Your task to perform on an android device: Open the phone app and click the voicemail tab. Image 0: 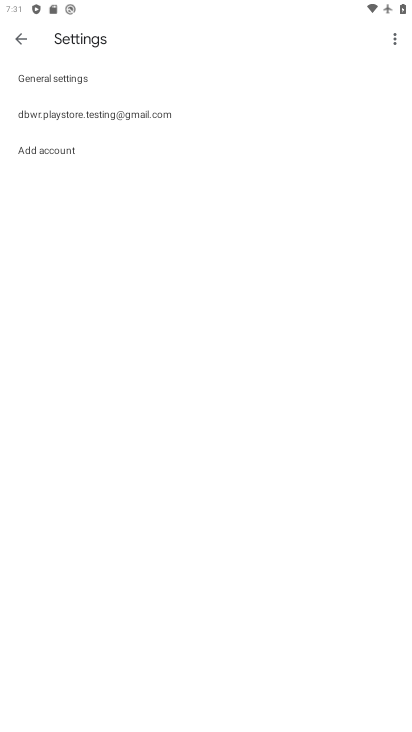
Step 0: press home button
Your task to perform on an android device: Open the phone app and click the voicemail tab. Image 1: 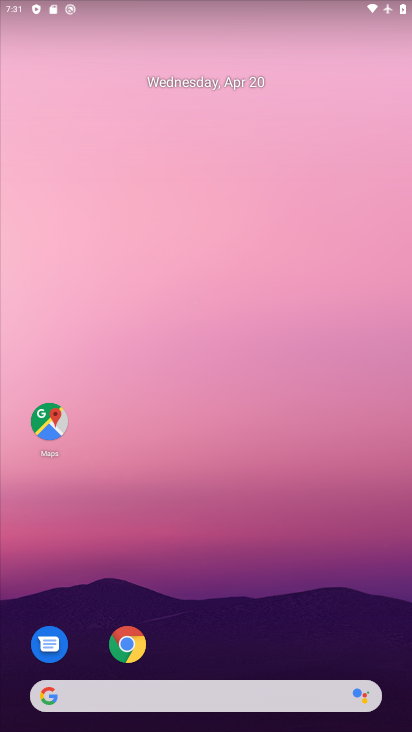
Step 1: drag from (319, 626) to (276, 69)
Your task to perform on an android device: Open the phone app and click the voicemail tab. Image 2: 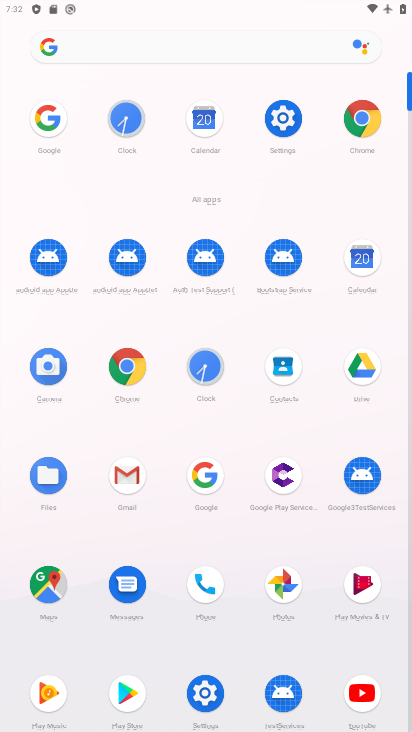
Step 2: click (205, 588)
Your task to perform on an android device: Open the phone app and click the voicemail tab. Image 3: 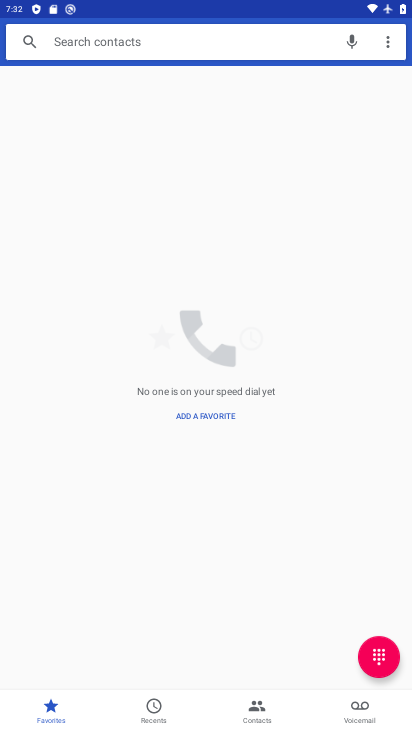
Step 3: click (357, 709)
Your task to perform on an android device: Open the phone app and click the voicemail tab. Image 4: 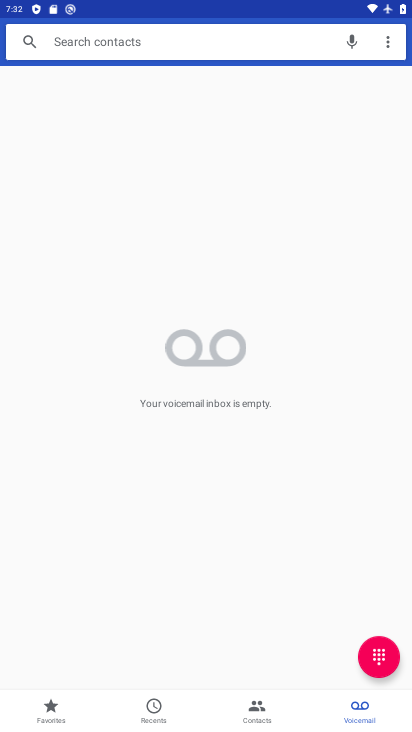
Step 4: task complete